Your task to perform on an android device: turn vacation reply on in the gmail app Image 0: 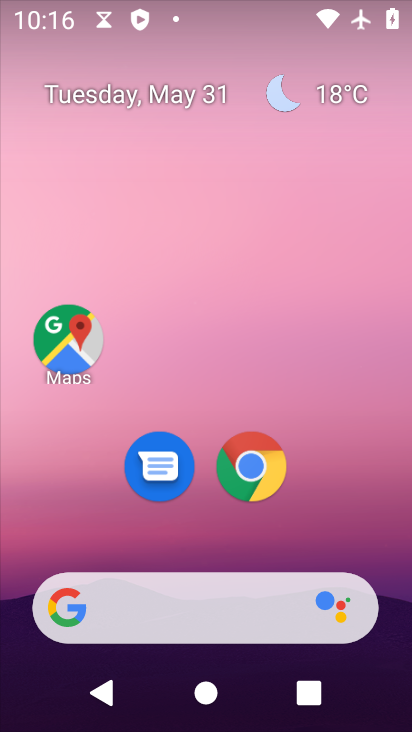
Step 0: drag from (374, 501) to (259, 26)
Your task to perform on an android device: turn vacation reply on in the gmail app Image 1: 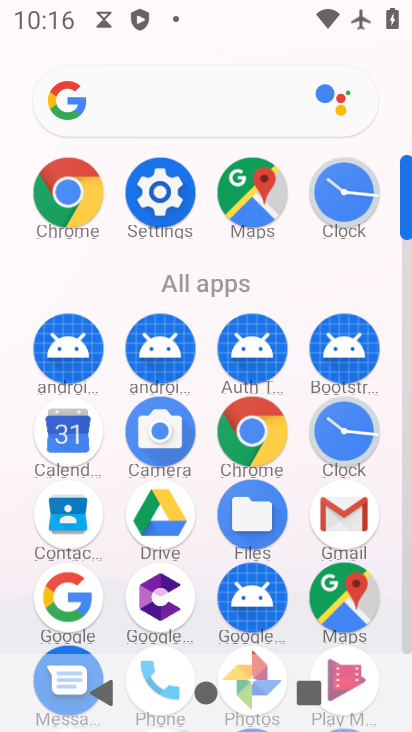
Step 1: click (346, 510)
Your task to perform on an android device: turn vacation reply on in the gmail app Image 2: 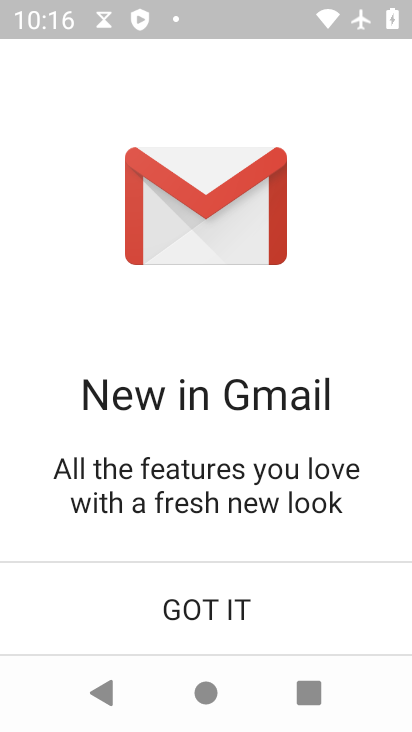
Step 2: click (214, 605)
Your task to perform on an android device: turn vacation reply on in the gmail app Image 3: 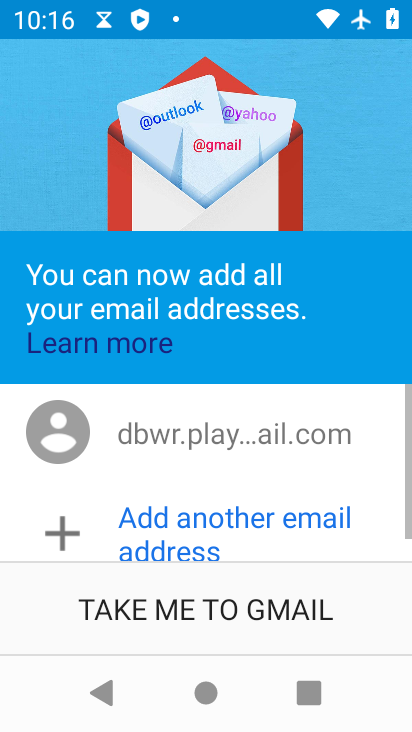
Step 3: click (210, 601)
Your task to perform on an android device: turn vacation reply on in the gmail app Image 4: 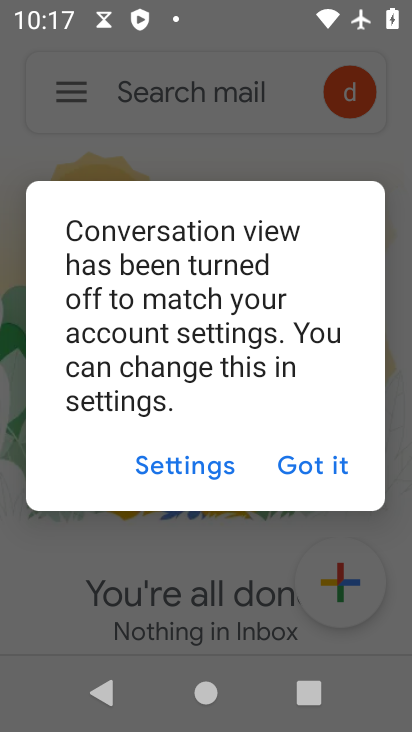
Step 4: click (296, 471)
Your task to perform on an android device: turn vacation reply on in the gmail app Image 5: 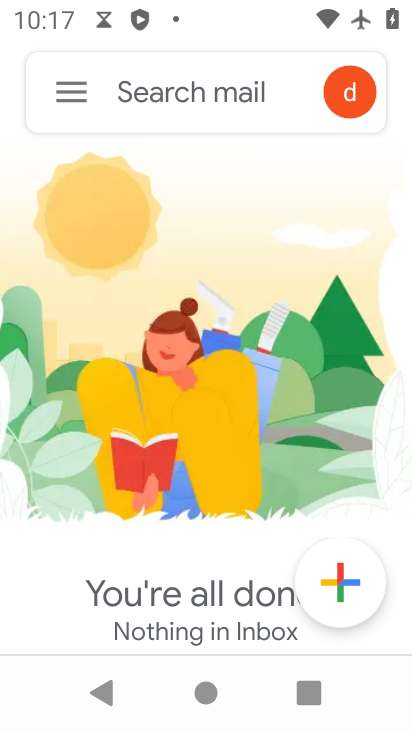
Step 5: click (70, 78)
Your task to perform on an android device: turn vacation reply on in the gmail app Image 6: 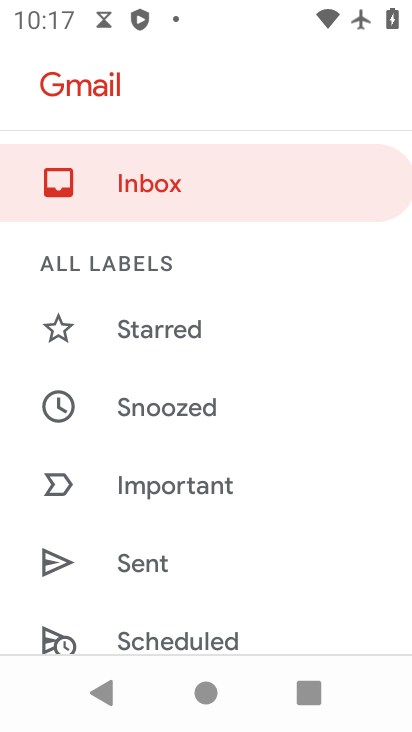
Step 6: drag from (279, 567) to (250, 148)
Your task to perform on an android device: turn vacation reply on in the gmail app Image 7: 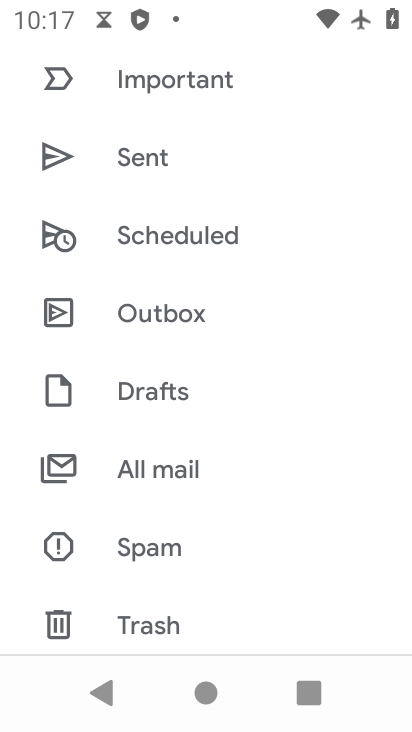
Step 7: drag from (279, 564) to (284, 171)
Your task to perform on an android device: turn vacation reply on in the gmail app Image 8: 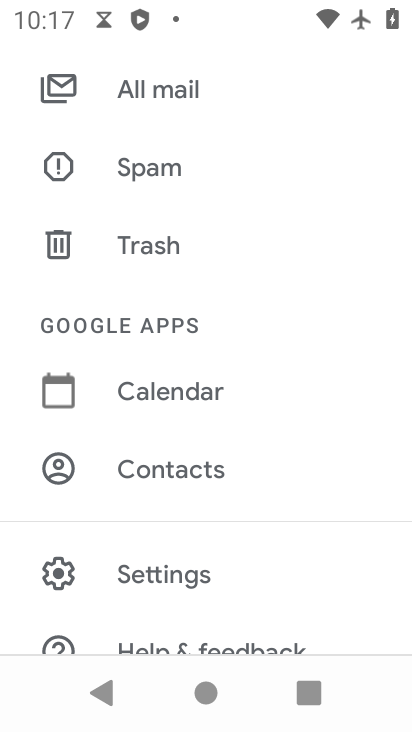
Step 8: drag from (234, 553) to (284, 250)
Your task to perform on an android device: turn vacation reply on in the gmail app Image 9: 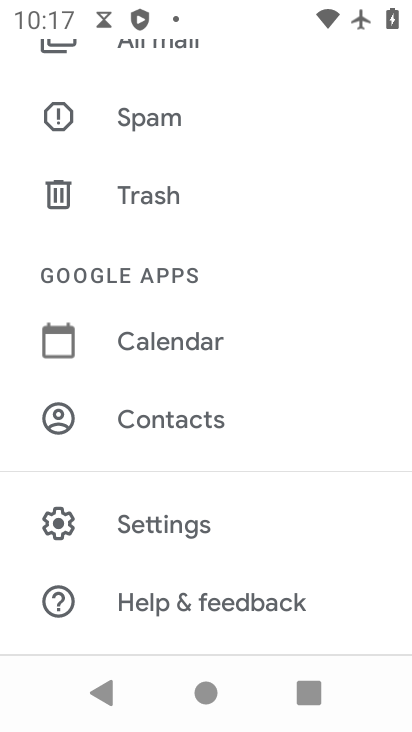
Step 9: click (186, 525)
Your task to perform on an android device: turn vacation reply on in the gmail app Image 10: 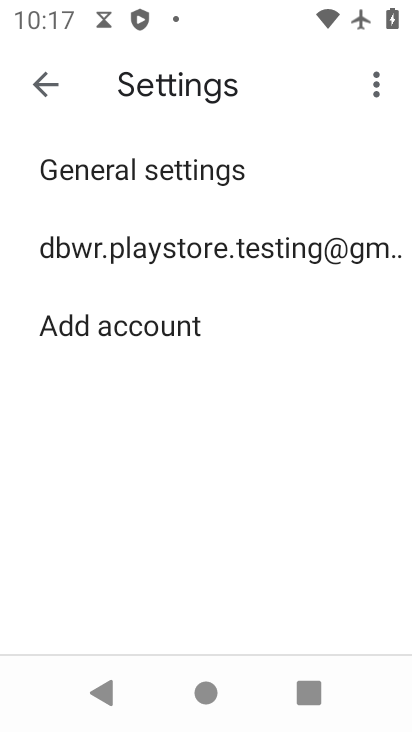
Step 10: click (258, 250)
Your task to perform on an android device: turn vacation reply on in the gmail app Image 11: 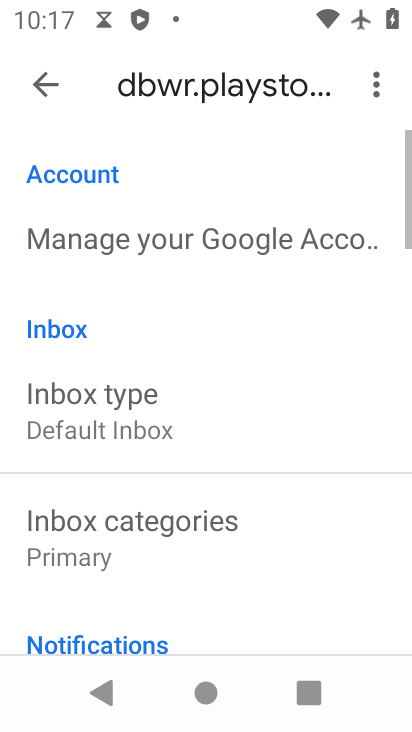
Step 11: drag from (299, 568) to (311, 107)
Your task to perform on an android device: turn vacation reply on in the gmail app Image 12: 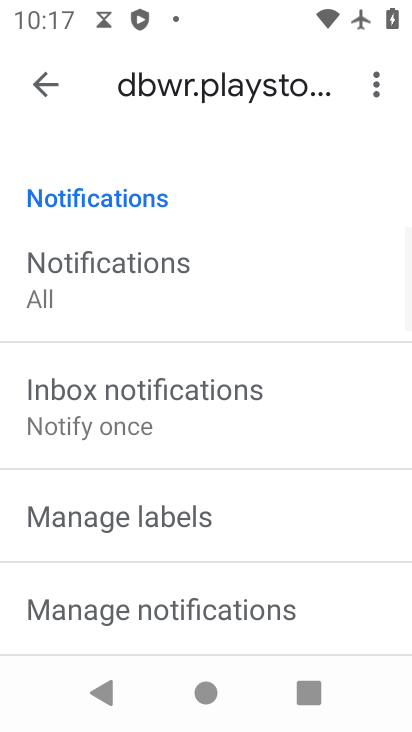
Step 12: drag from (308, 551) to (300, 111)
Your task to perform on an android device: turn vacation reply on in the gmail app Image 13: 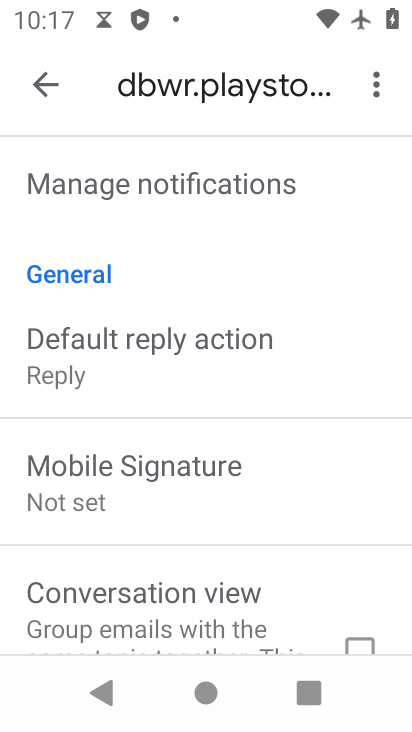
Step 13: drag from (293, 562) to (293, 142)
Your task to perform on an android device: turn vacation reply on in the gmail app Image 14: 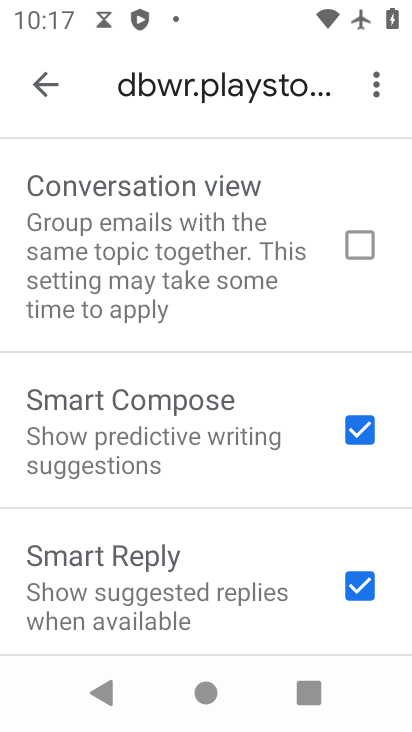
Step 14: drag from (204, 503) to (241, 194)
Your task to perform on an android device: turn vacation reply on in the gmail app Image 15: 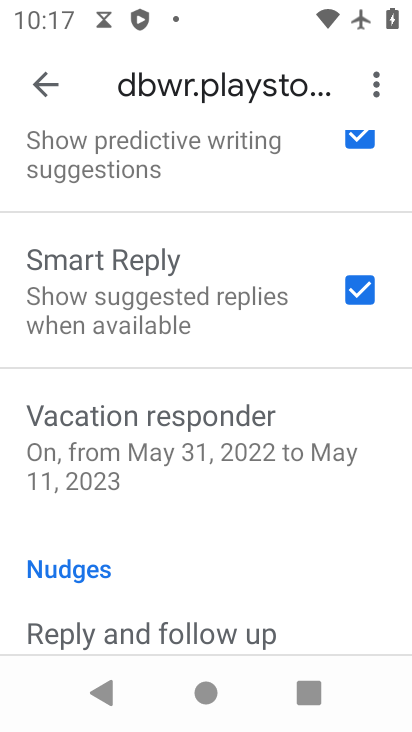
Step 15: click (202, 458)
Your task to perform on an android device: turn vacation reply on in the gmail app Image 16: 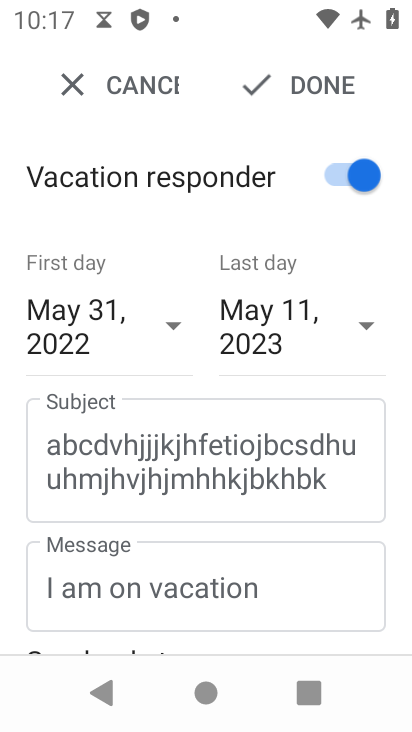
Step 16: click (307, 78)
Your task to perform on an android device: turn vacation reply on in the gmail app Image 17: 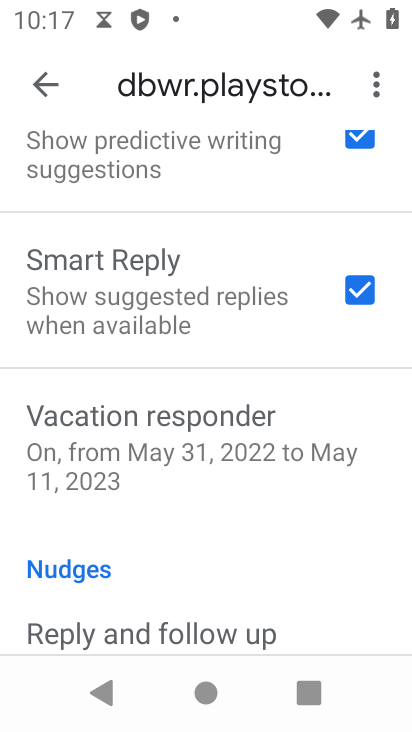
Step 17: task complete